Your task to perform on an android device: Toggle the flashlight Image 0: 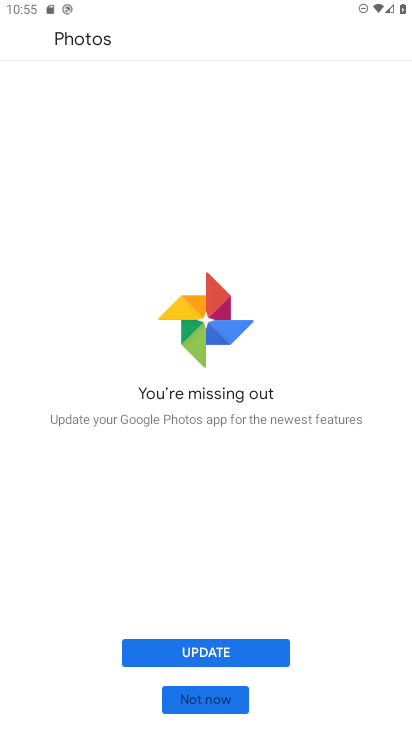
Step 0: press home button
Your task to perform on an android device: Toggle the flashlight Image 1: 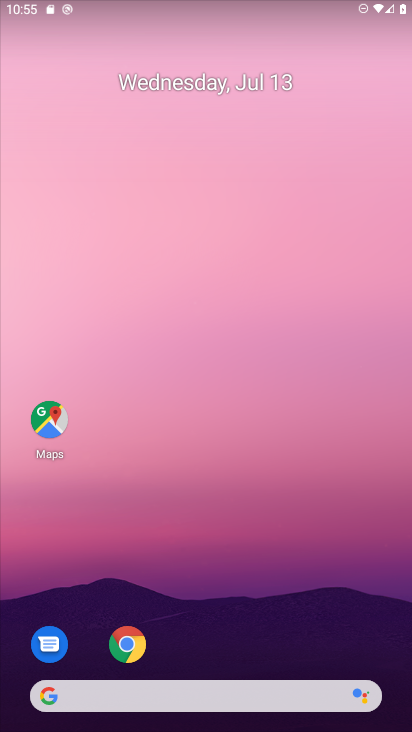
Step 1: drag from (245, 602) to (207, 109)
Your task to perform on an android device: Toggle the flashlight Image 2: 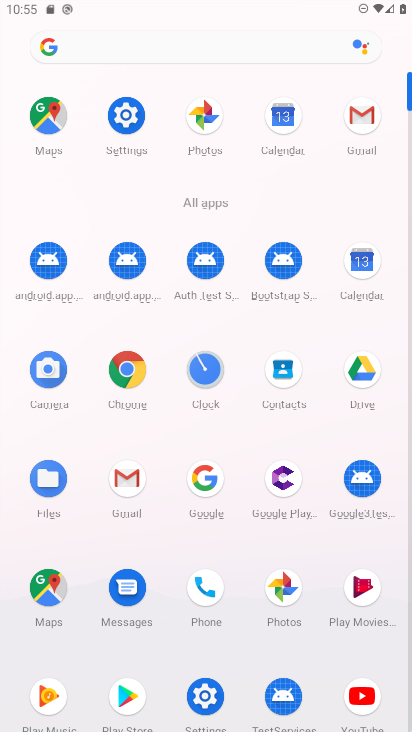
Step 2: click (119, 115)
Your task to perform on an android device: Toggle the flashlight Image 3: 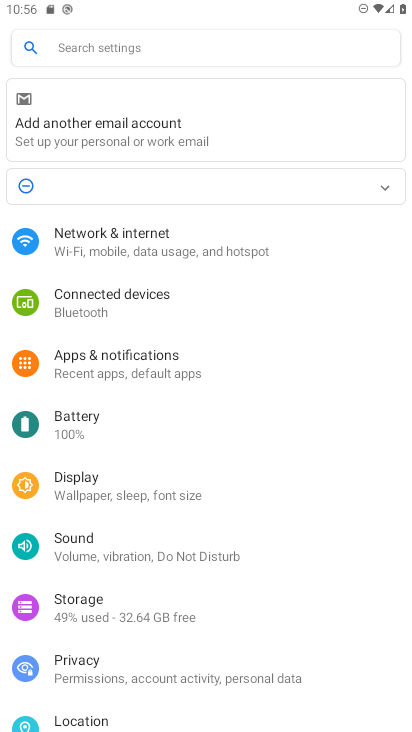
Step 3: click (77, 483)
Your task to perform on an android device: Toggle the flashlight Image 4: 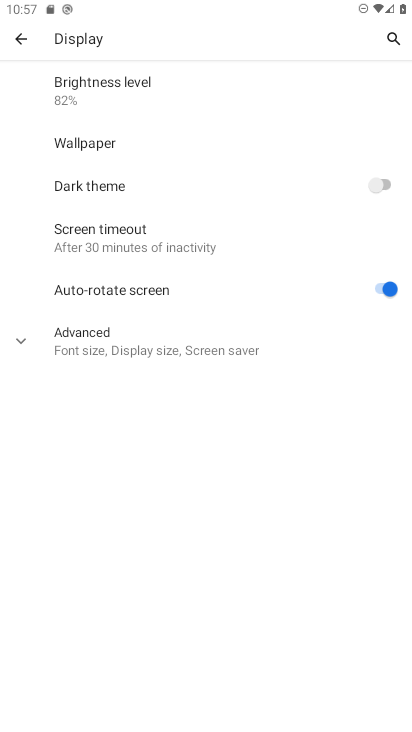
Step 4: task complete